Your task to perform on an android device: How do I get to the nearest IKEA? Image 0: 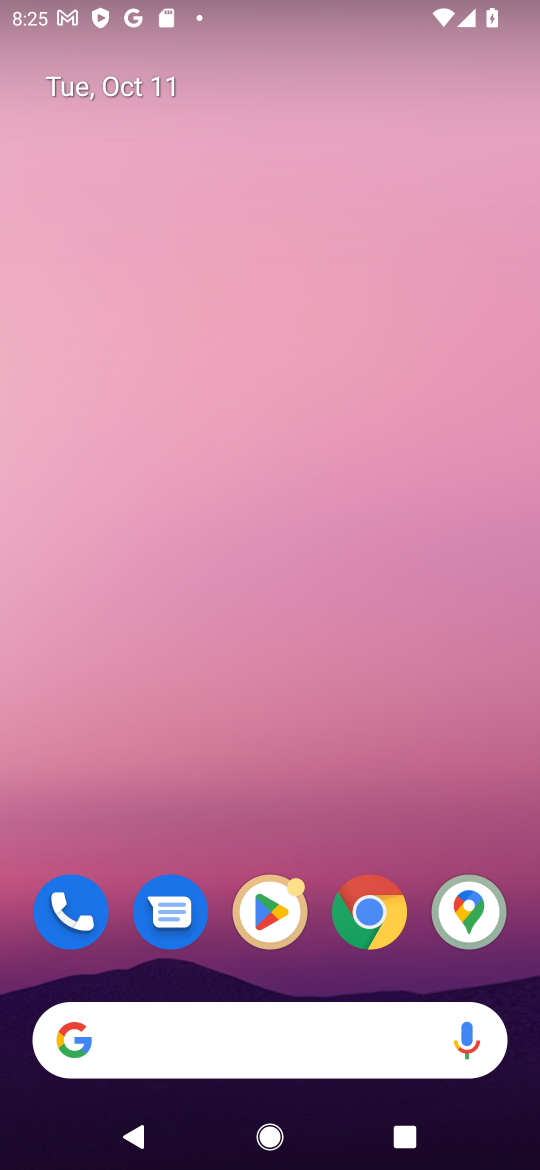
Step 0: click (370, 916)
Your task to perform on an android device: How do I get to the nearest IKEA? Image 1: 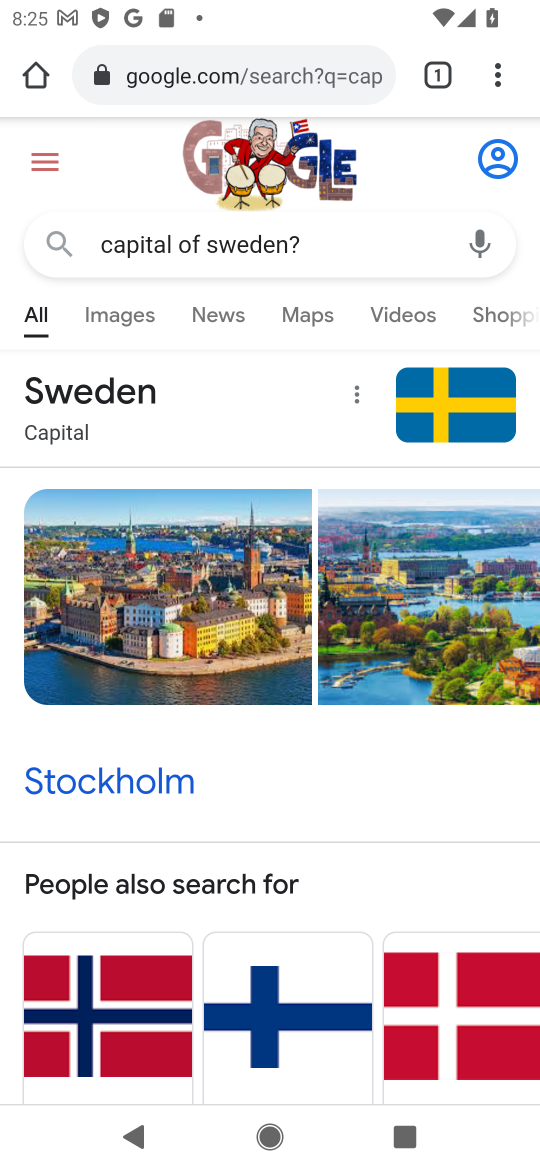
Step 1: click (255, 45)
Your task to perform on an android device: How do I get to the nearest IKEA? Image 2: 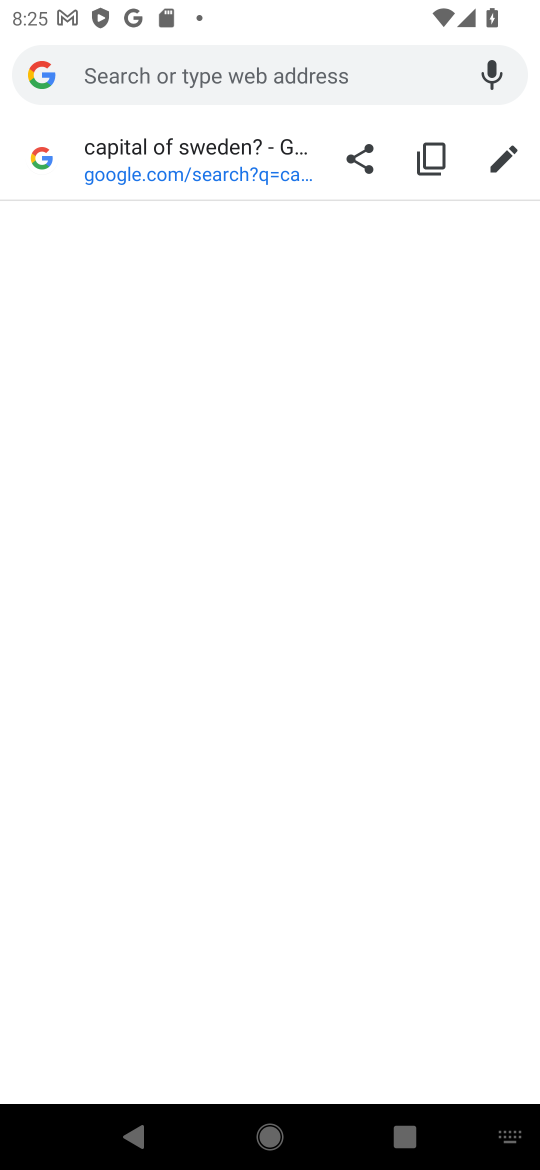
Step 2: type "nearest IKEA?"
Your task to perform on an android device: How do I get to the nearest IKEA? Image 3: 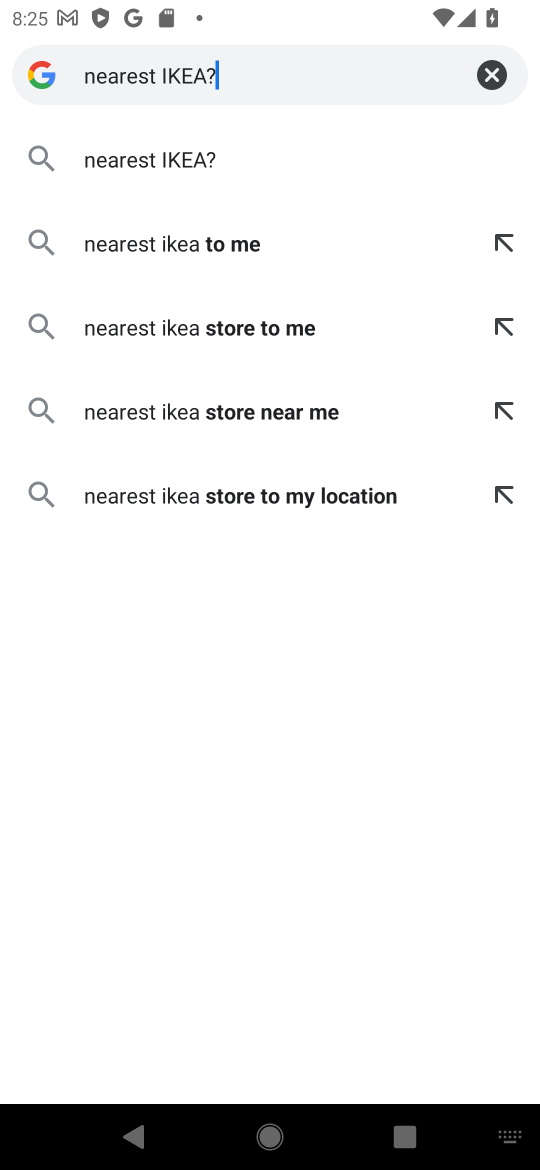
Step 3: click (113, 159)
Your task to perform on an android device: How do I get to the nearest IKEA? Image 4: 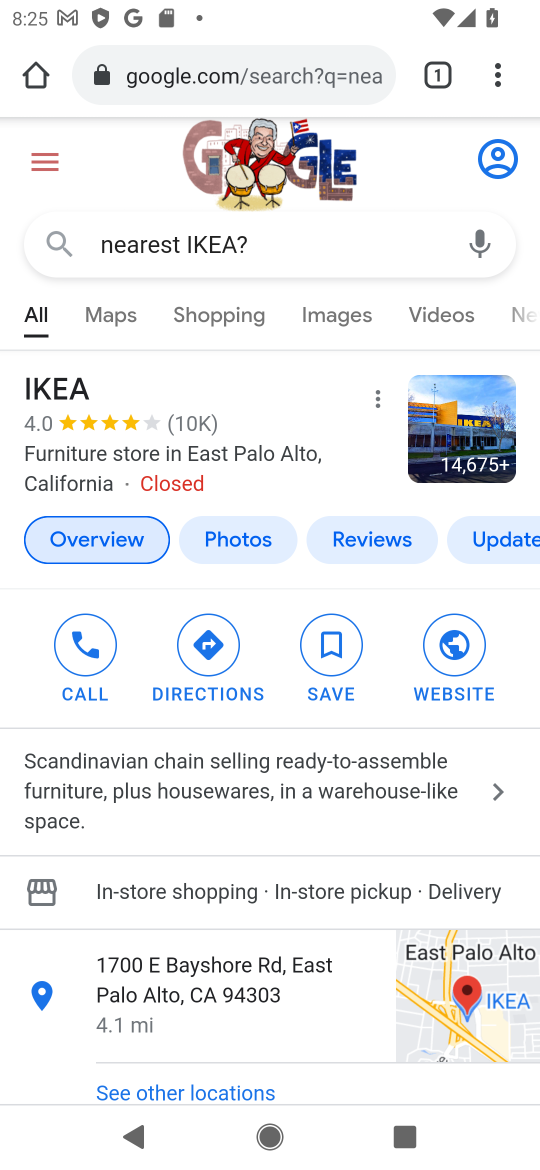
Step 4: drag from (290, 850) to (246, 323)
Your task to perform on an android device: How do I get to the nearest IKEA? Image 5: 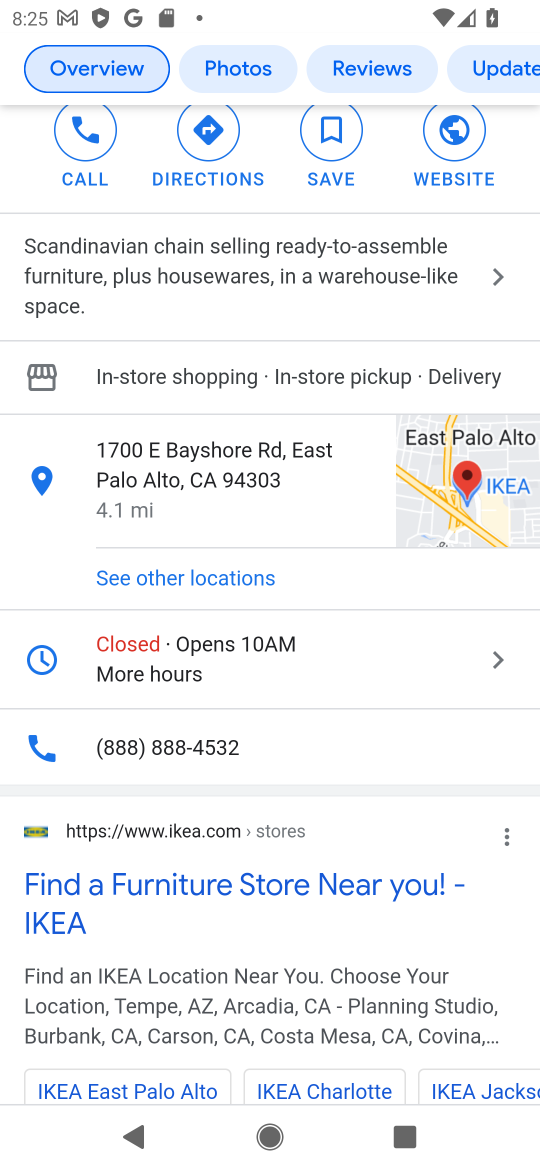
Step 5: drag from (228, 912) to (256, 533)
Your task to perform on an android device: How do I get to the nearest IKEA? Image 6: 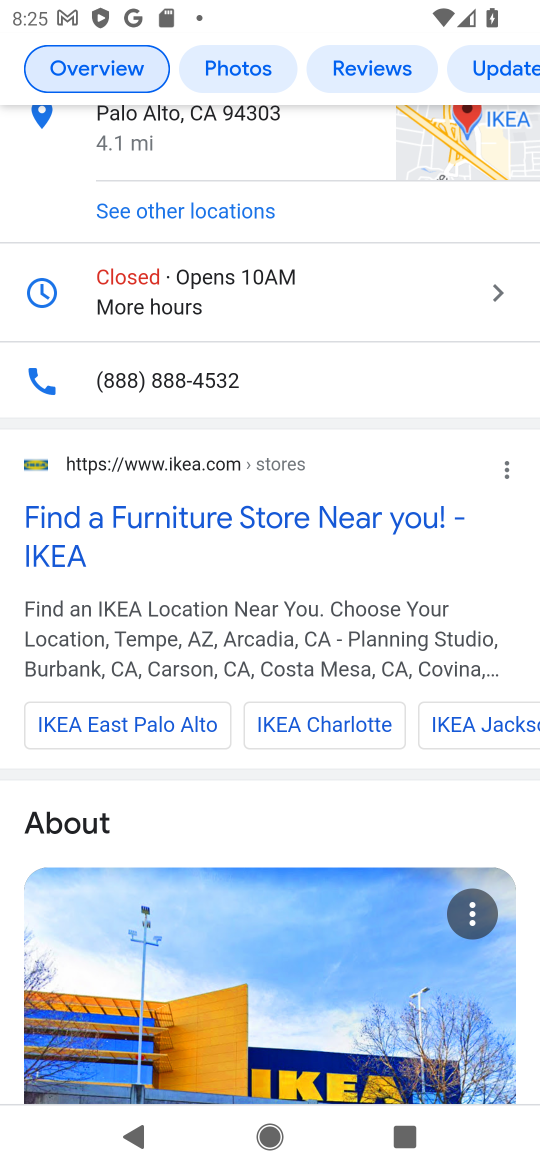
Step 6: click (132, 525)
Your task to perform on an android device: How do I get to the nearest IKEA? Image 7: 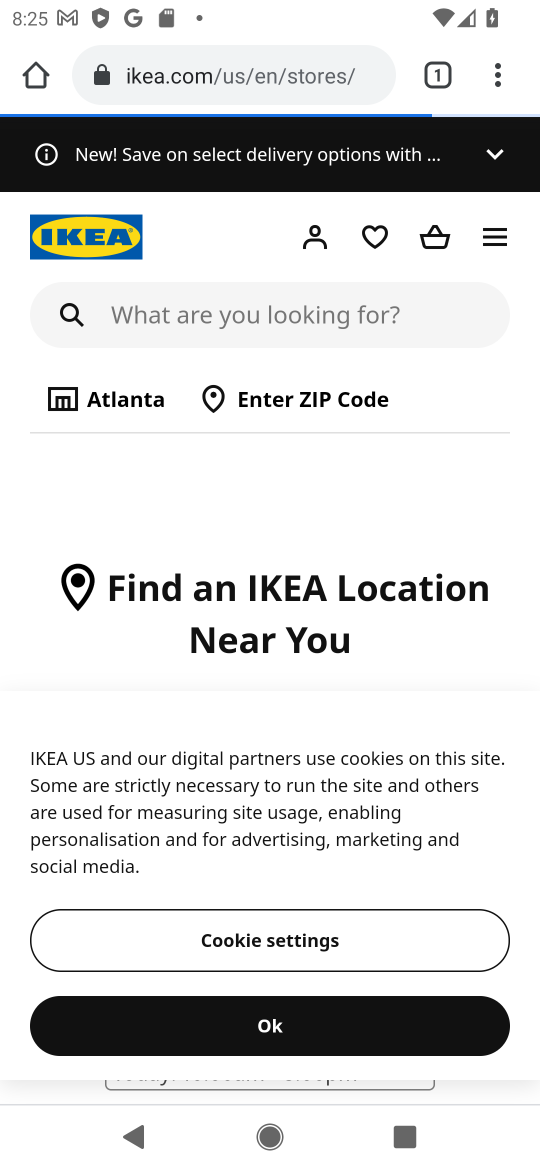
Step 7: drag from (317, 734) to (300, 295)
Your task to perform on an android device: How do I get to the nearest IKEA? Image 8: 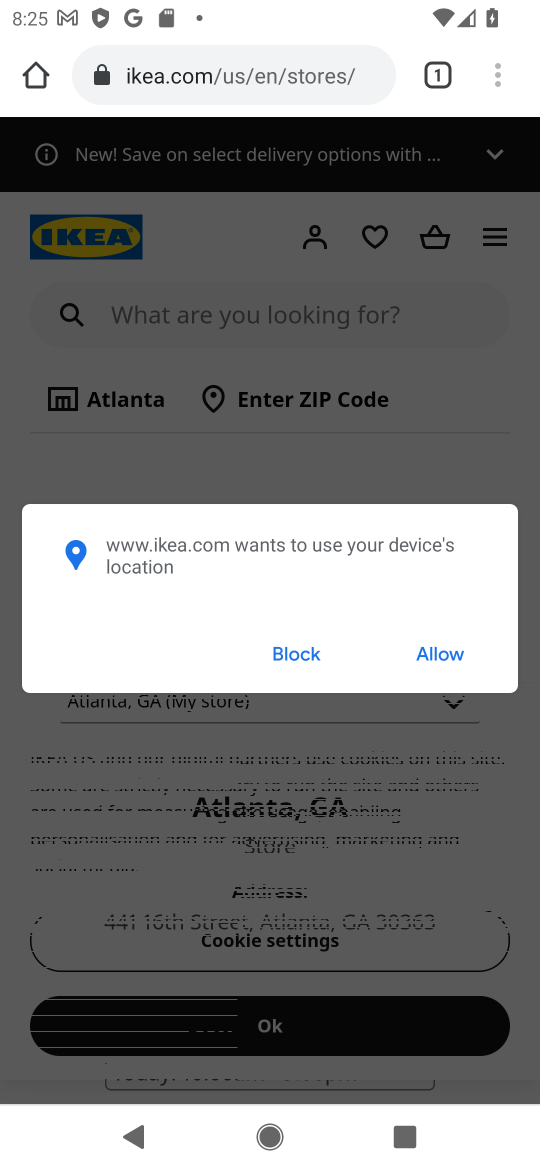
Step 8: click (287, 651)
Your task to perform on an android device: How do I get to the nearest IKEA? Image 9: 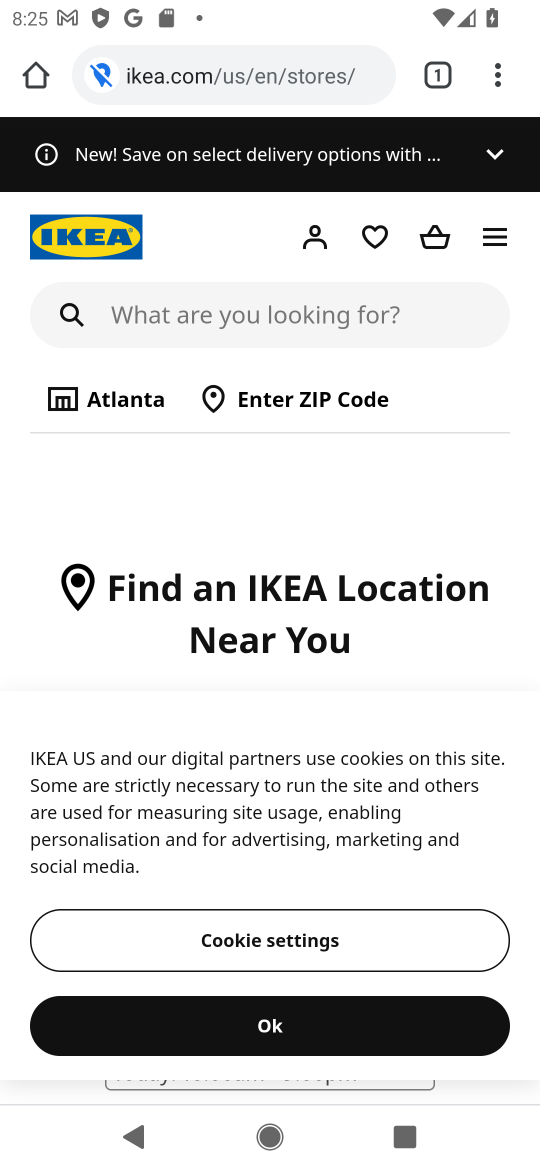
Step 9: click (263, 1022)
Your task to perform on an android device: How do I get to the nearest IKEA? Image 10: 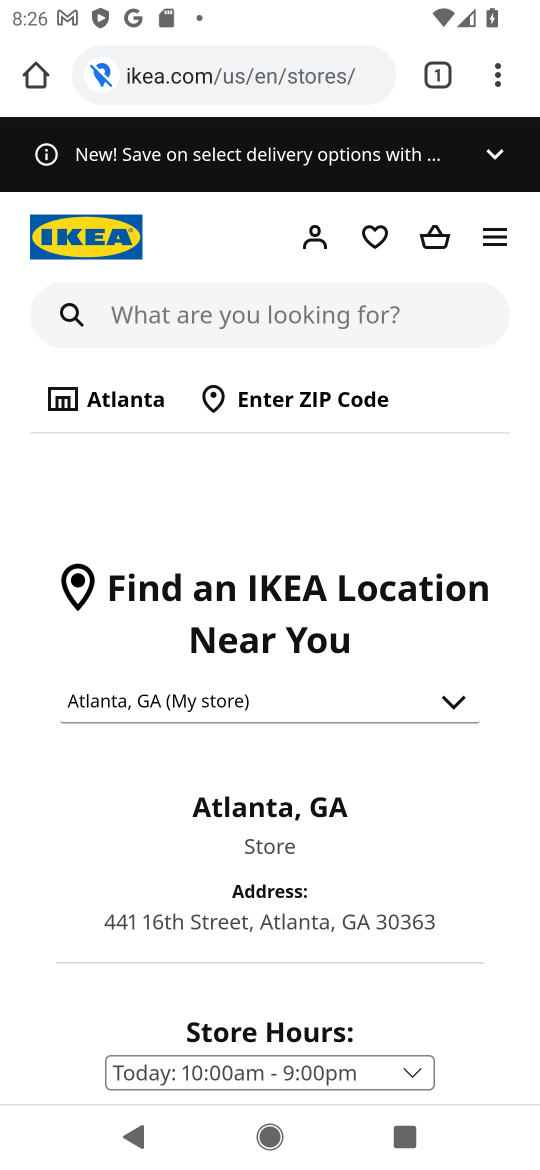
Step 10: task complete